Your task to perform on an android device: Do I have any events this weekend? Image 0: 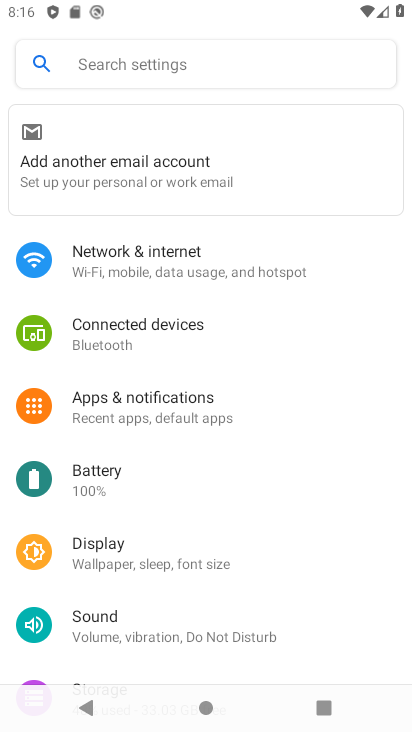
Step 0: press home button
Your task to perform on an android device: Do I have any events this weekend? Image 1: 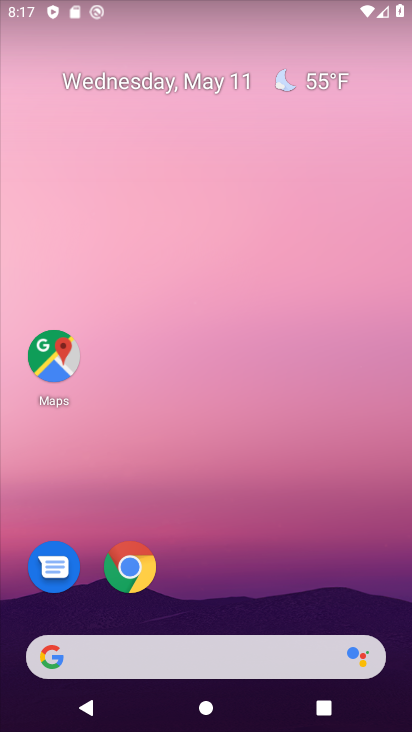
Step 1: drag from (244, 646) to (267, 28)
Your task to perform on an android device: Do I have any events this weekend? Image 2: 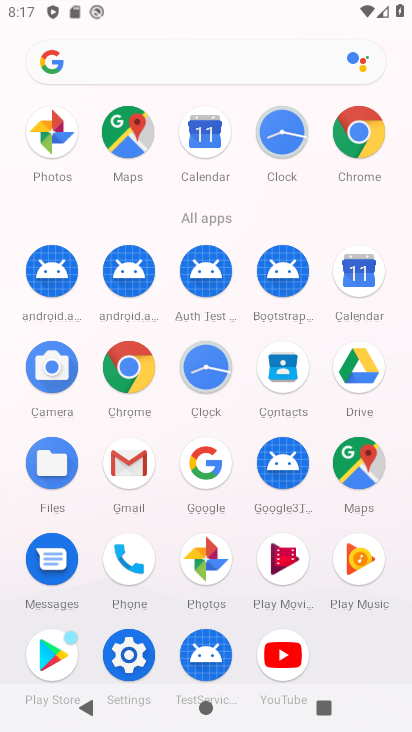
Step 2: click (368, 277)
Your task to perform on an android device: Do I have any events this weekend? Image 3: 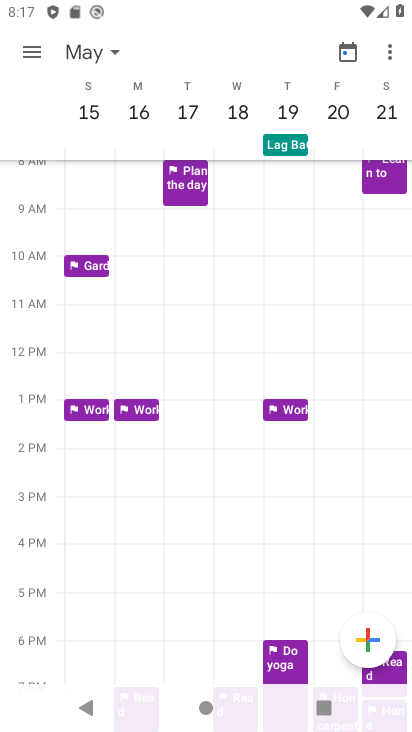
Step 3: click (116, 49)
Your task to perform on an android device: Do I have any events this weekend? Image 4: 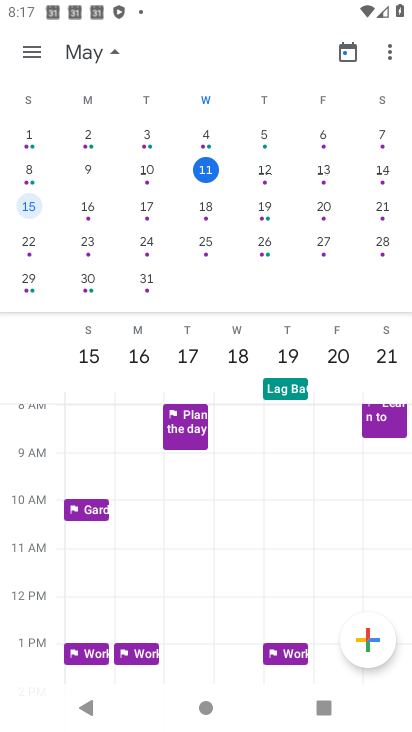
Step 4: click (388, 169)
Your task to perform on an android device: Do I have any events this weekend? Image 5: 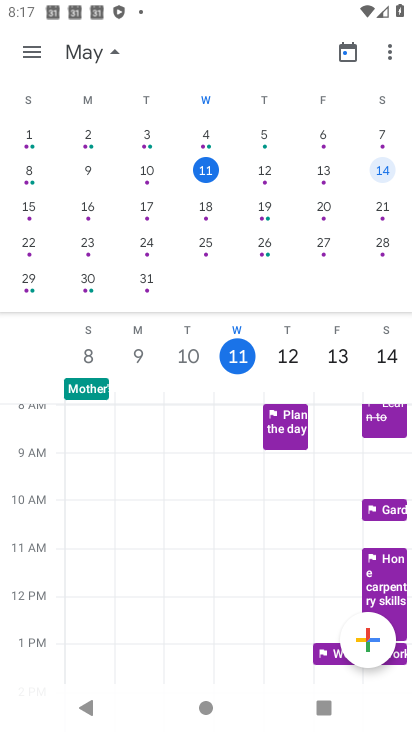
Step 5: task complete